Your task to perform on an android device: Show me productivity apps on the Play Store Image 0: 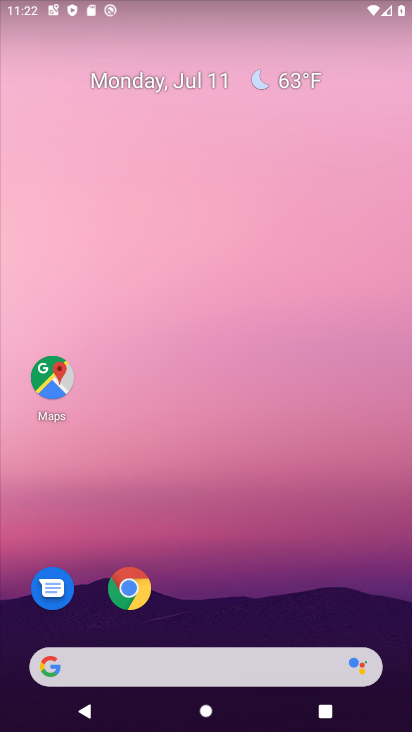
Step 0: drag from (251, 577) to (251, 138)
Your task to perform on an android device: Show me productivity apps on the Play Store Image 1: 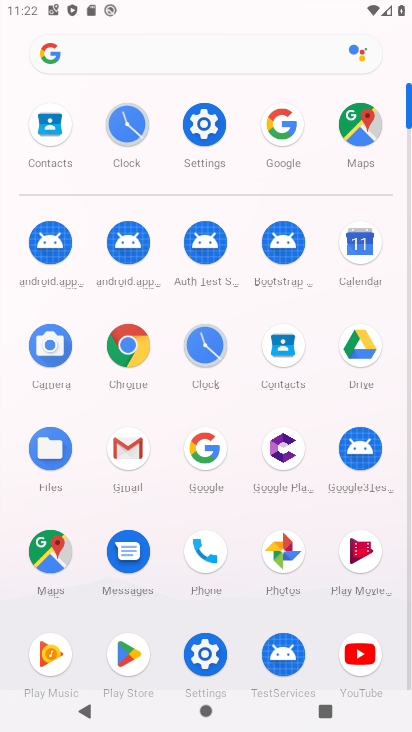
Step 1: click (136, 657)
Your task to perform on an android device: Show me productivity apps on the Play Store Image 2: 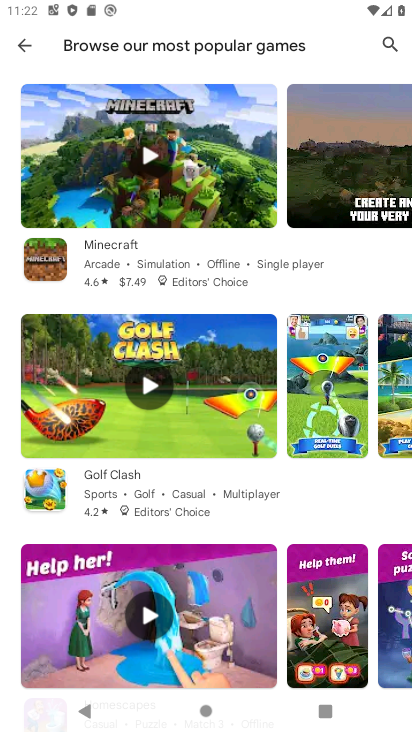
Step 2: click (24, 49)
Your task to perform on an android device: Show me productivity apps on the Play Store Image 3: 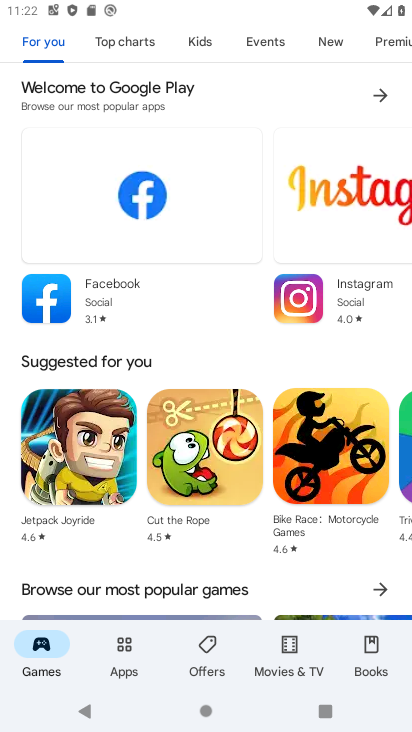
Step 3: click (126, 651)
Your task to perform on an android device: Show me productivity apps on the Play Store Image 4: 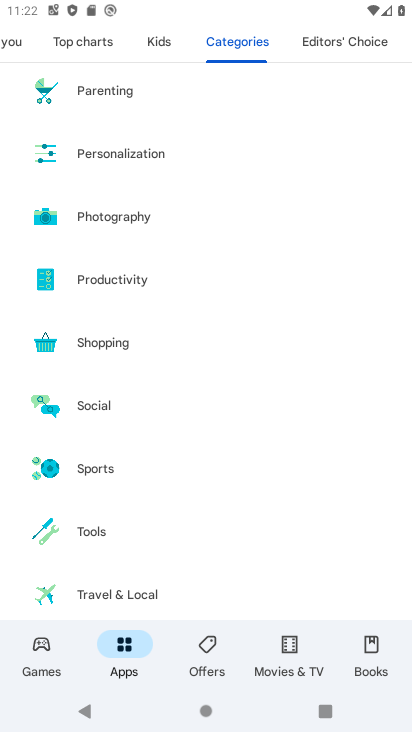
Step 4: click (114, 654)
Your task to perform on an android device: Show me productivity apps on the Play Store Image 5: 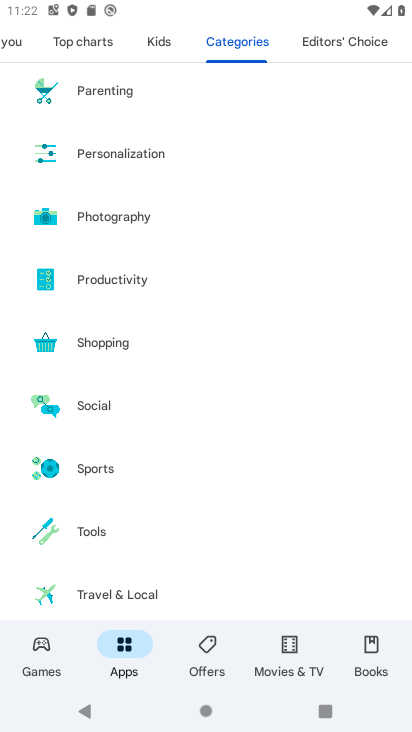
Step 5: click (100, 283)
Your task to perform on an android device: Show me productivity apps on the Play Store Image 6: 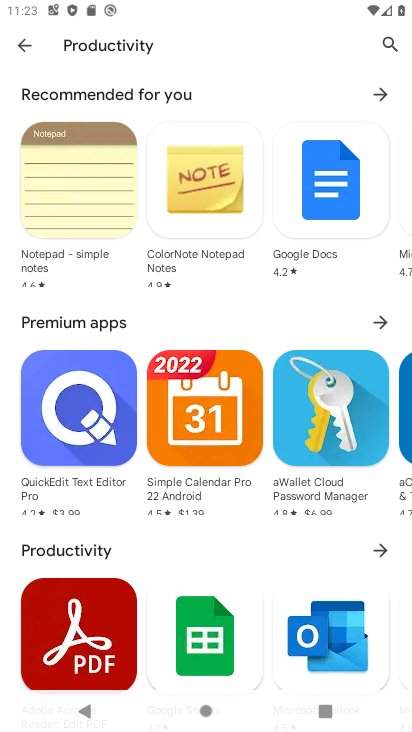
Step 6: task complete